Your task to perform on an android device: read, delete, or share a saved page in the chrome app Image 0: 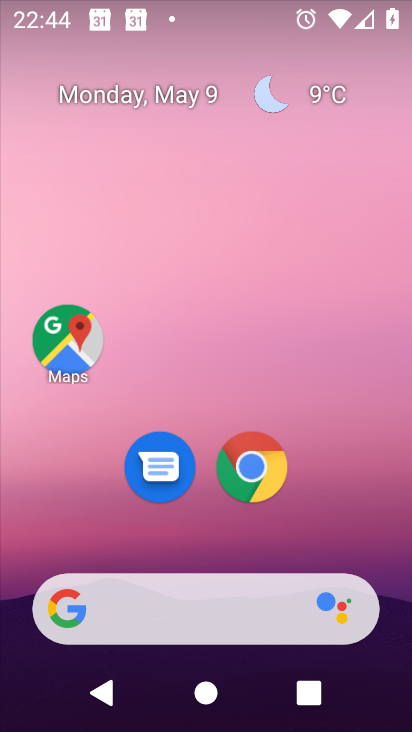
Step 0: click (252, 460)
Your task to perform on an android device: read, delete, or share a saved page in the chrome app Image 1: 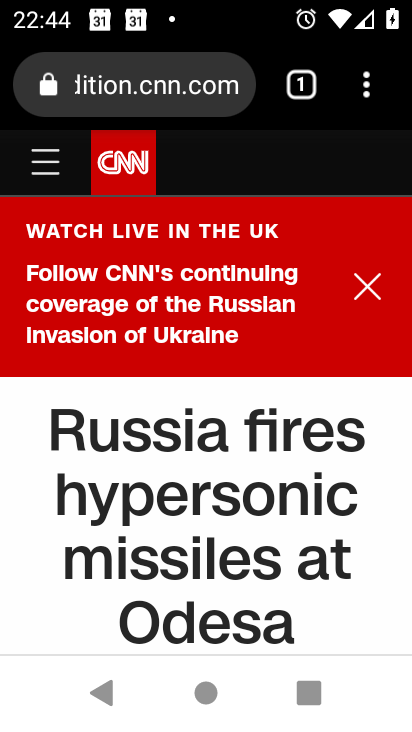
Step 1: click (369, 78)
Your task to perform on an android device: read, delete, or share a saved page in the chrome app Image 2: 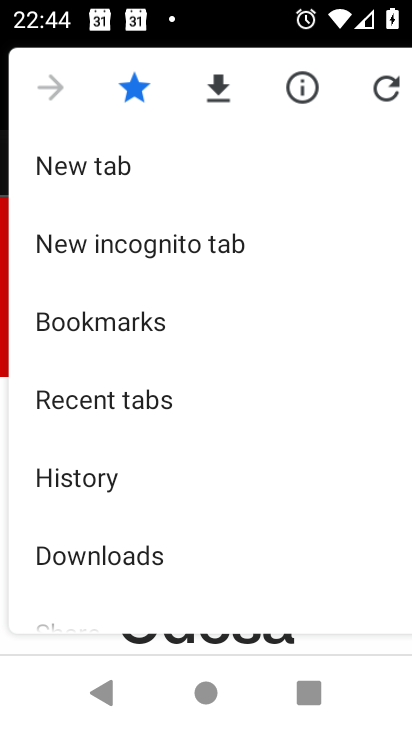
Step 2: drag from (164, 476) to (151, 278)
Your task to perform on an android device: read, delete, or share a saved page in the chrome app Image 3: 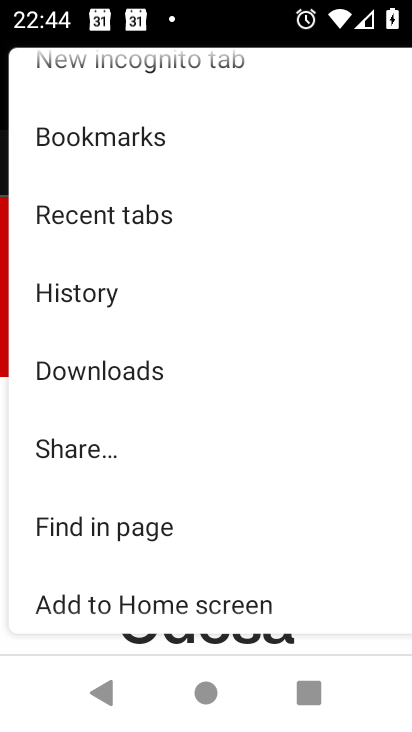
Step 3: click (60, 380)
Your task to perform on an android device: read, delete, or share a saved page in the chrome app Image 4: 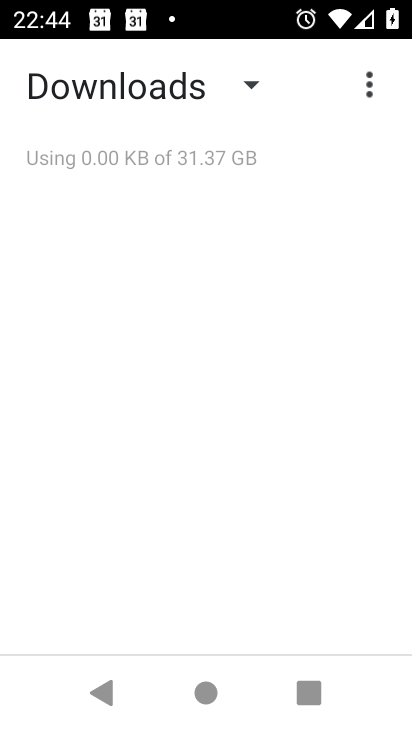
Step 4: click (238, 95)
Your task to perform on an android device: read, delete, or share a saved page in the chrome app Image 5: 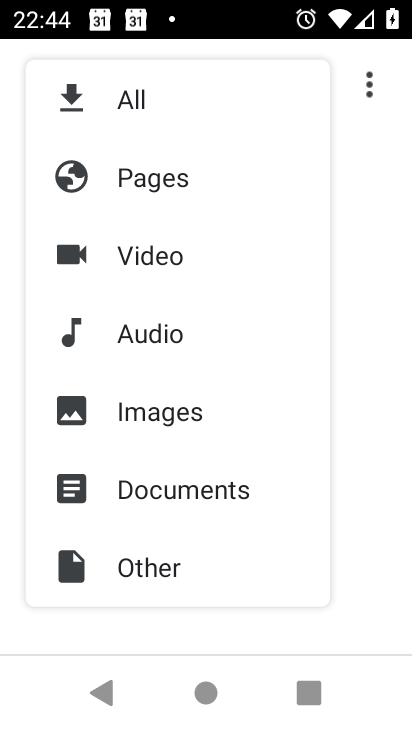
Step 5: click (126, 185)
Your task to perform on an android device: read, delete, or share a saved page in the chrome app Image 6: 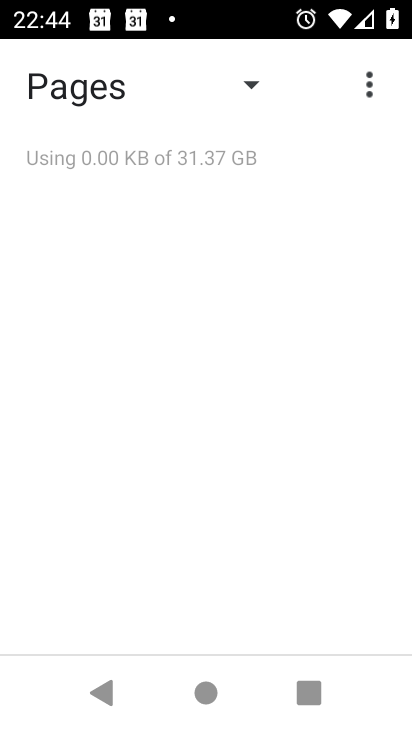
Step 6: task complete